Your task to perform on an android device: Open wifi settings Image 0: 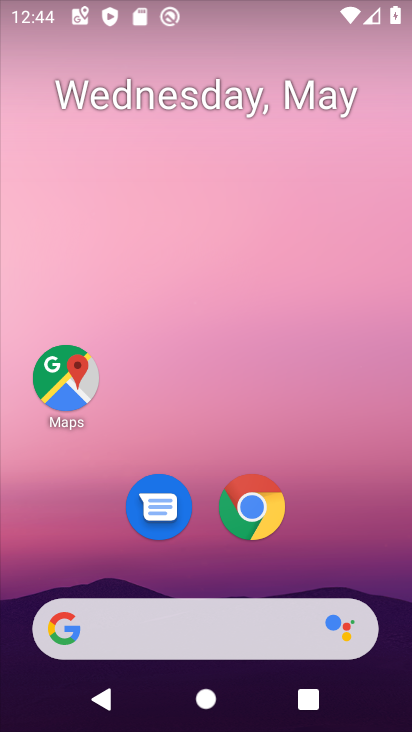
Step 0: drag from (392, 641) to (368, 87)
Your task to perform on an android device: Open wifi settings Image 1: 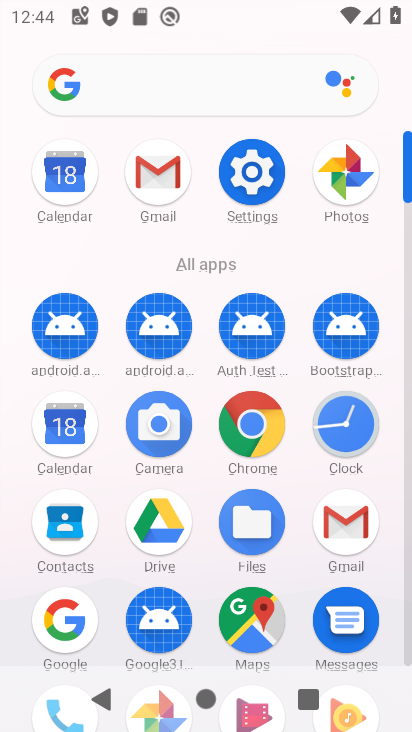
Step 1: click (409, 652)
Your task to perform on an android device: Open wifi settings Image 2: 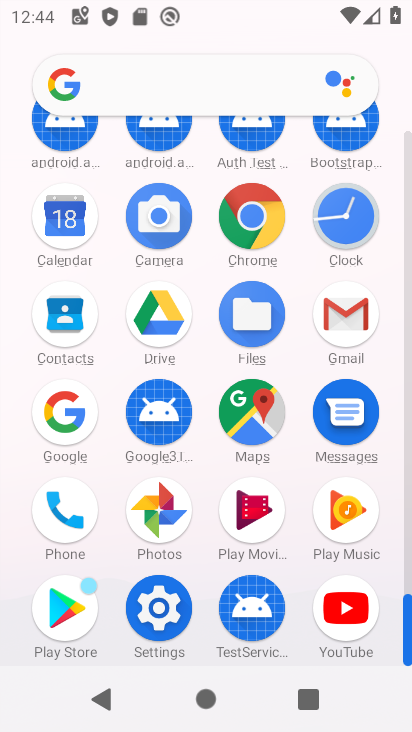
Step 2: click (163, 606)
Your task to perform on an android device: Open wifi settings Image 3: 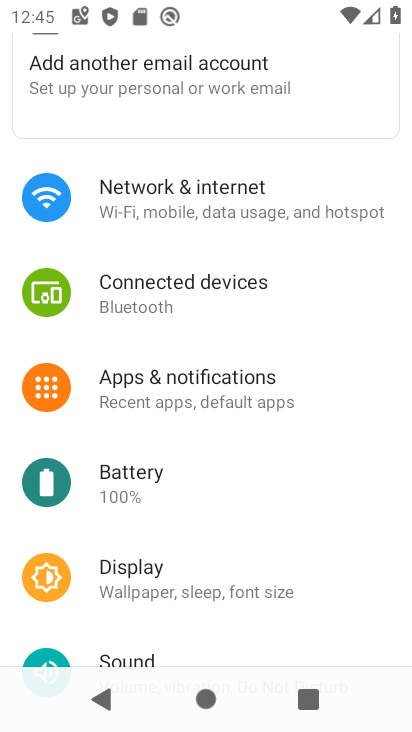
Step 3: click (177, 196)
Your task to perform on an android device: Open wifi settings Image 4: 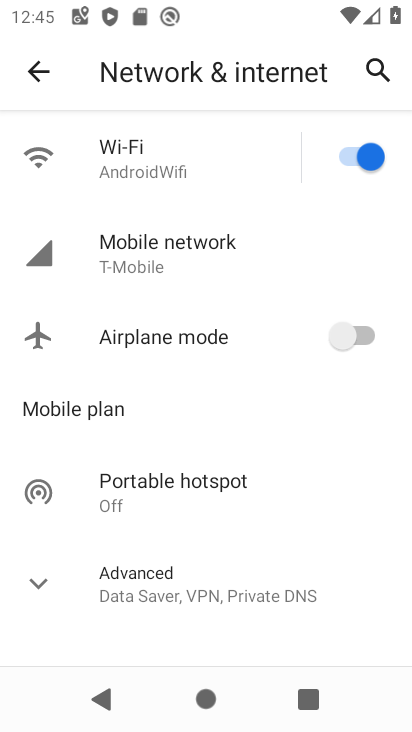
Step 4: click (107, 157)
Your task to perform on an android device: Open wifi settings Image 5: 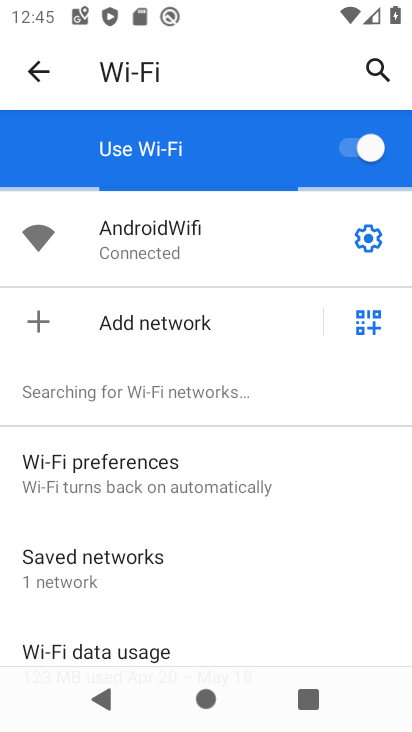
Step 5: drag from (209, 549) to (270, 181)
Your task to perform on an android device: Open wifi settings Image 6: 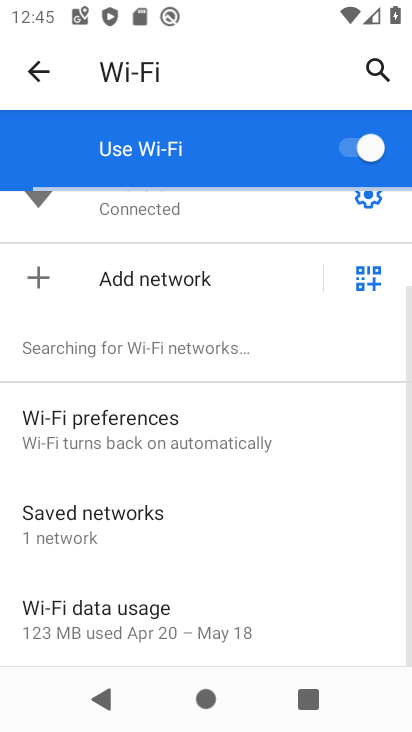
Step 6: drag from (263, 350) to (256, 640)
Your task to perform on an android device: Open wifi settings Image 7: 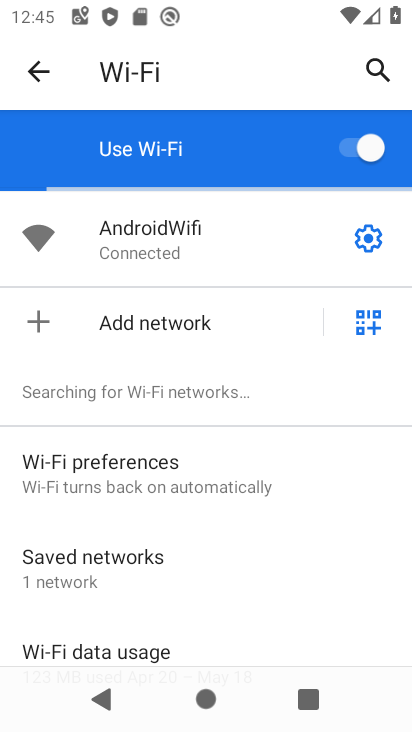
Step 7: click (364, 238)
Your task to perform on an android device: Open wifi settings Image 8: 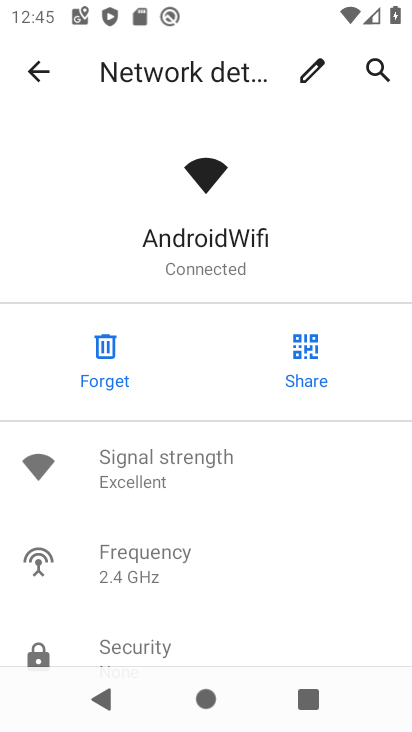
Step 8: drag from (225, 611) to (181, 288)
Your task to perform on an android device: Open wifi settings Image 9: 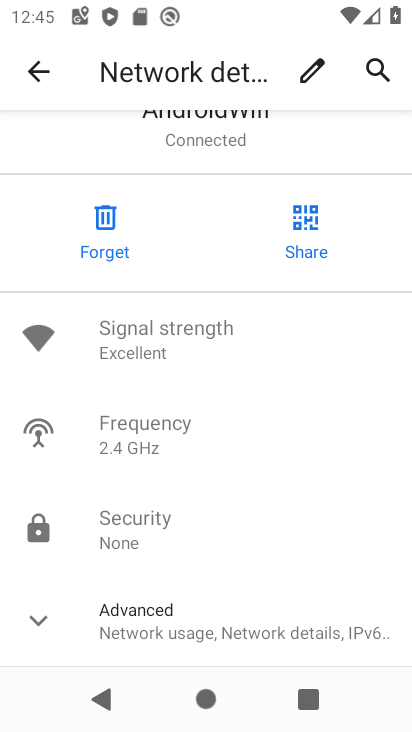
Step 9: click (34, 619)
Your task to perform on an android device: Open wifi settings Image 10: 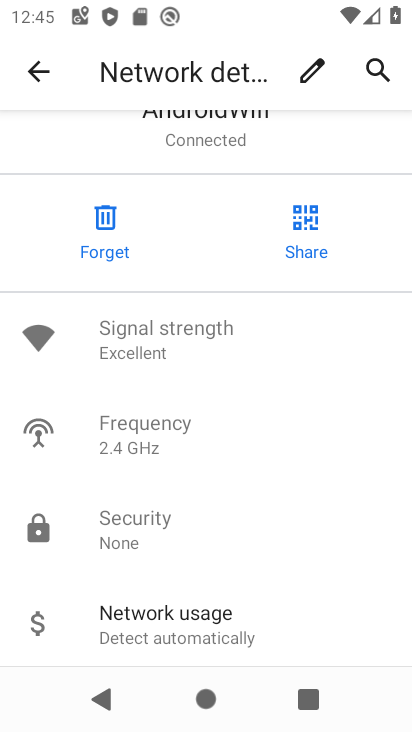
Step 10: task complete